Your task to perform on an android device: turn on the 12-hour format for clock Image 0: 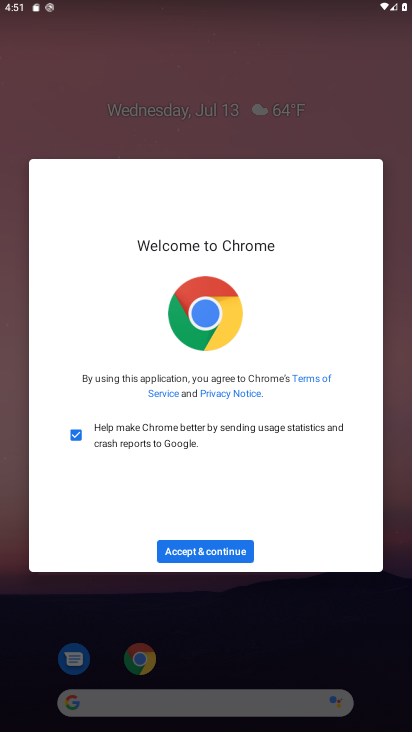
Step 0: press home button
Your task to perform on an android device: turn on the 12-hour format for clock Image 1: 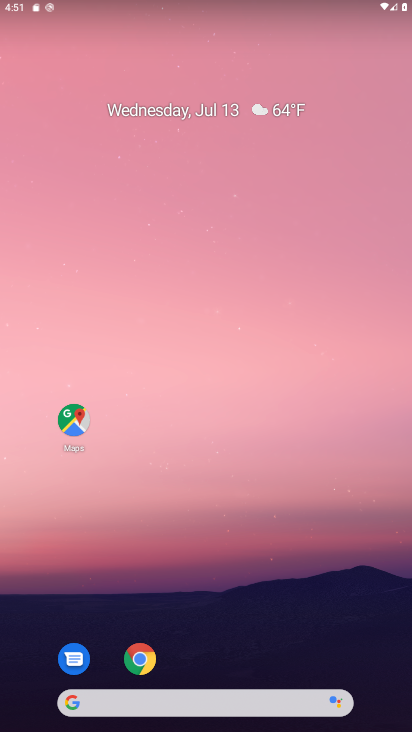
Step 1: drag from (282, 578) to (197, 17)
Your task to perform on an android device: turn on the 12-hour format for clock Image 2: 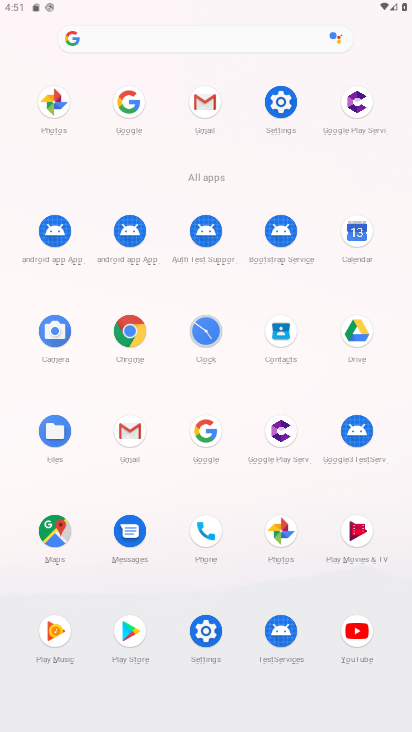
Step 2: click (208, 334)
Your task to perform on an android device: turn on the 12-hour format for clock Image 3: 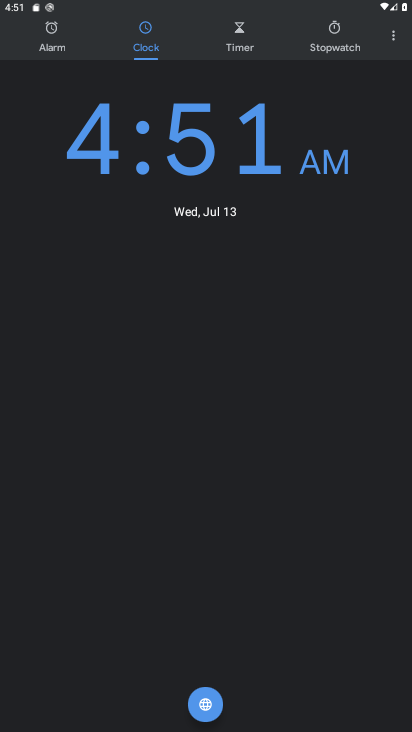
Step 3: click (386, 41)
Your task to perform on an android device: turn on the 12-hour format for clock Image 4: 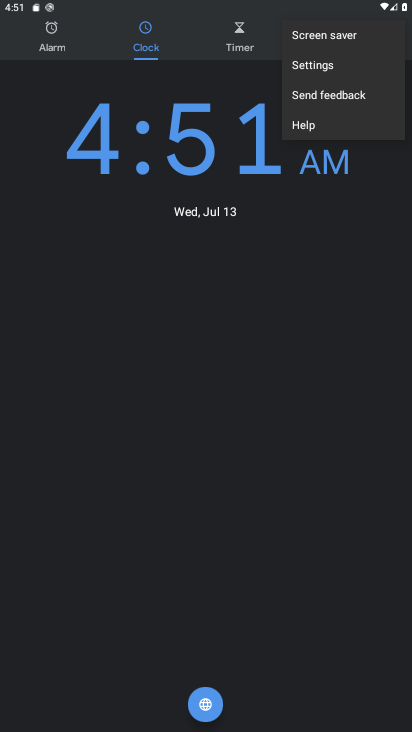
Step 4: click (344, 67)
Your task to perform on an android device: turn on the 12-hour format for clock Image 5: 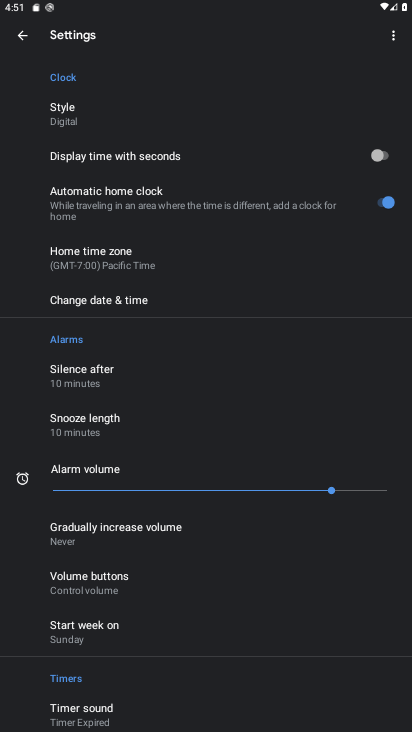
Step 5: click (124, 301)
Your task to perform on an android device: turn on the 12-hour format for clock Image 6: 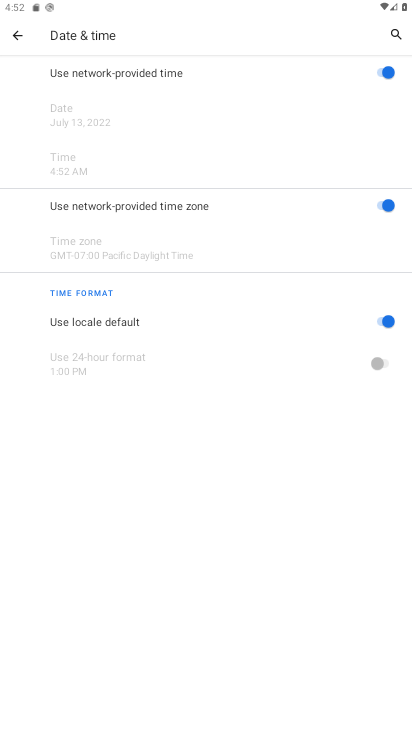
Step 6: task complete